Your task to perform on an android device: toggle pop-ups in chrome Image 0: 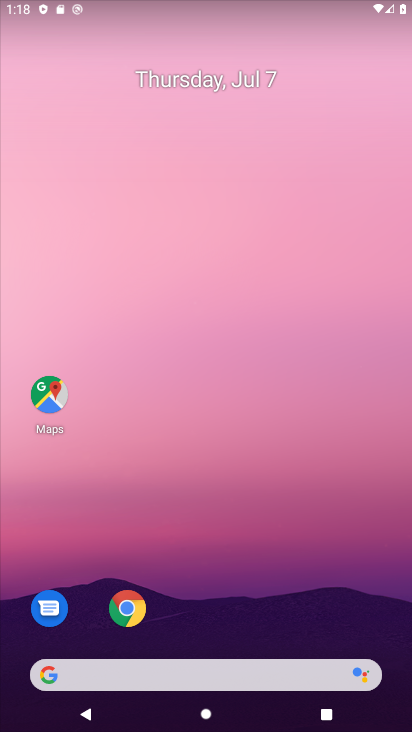
Step 0: click (114, 598)
Your task to perform on an android device: toggle pop-ups in chrome Image 1: 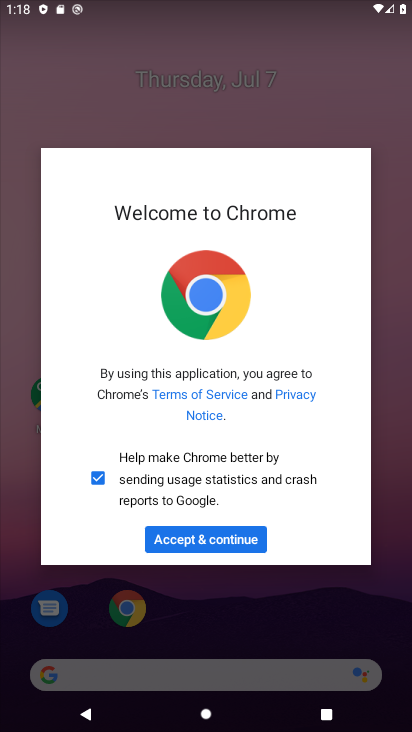
Step 1: click (235, 537)
Your task to perform on an android device: toggle pop-ups in chrome Image 2: 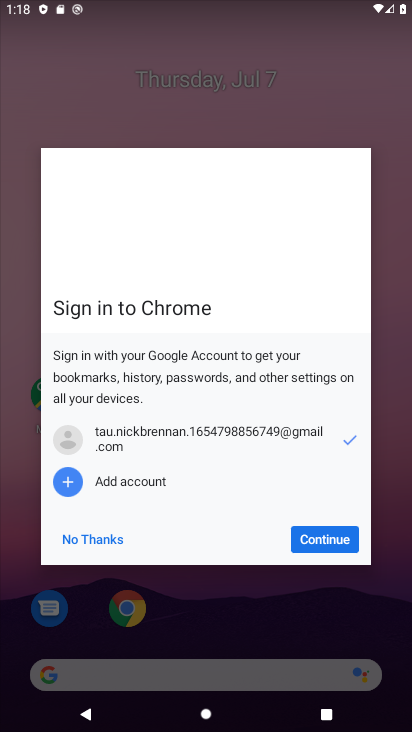
Step 2: click (315, 541)
Your task to perform on an android device: toggle pop-ups in chrome Image 3: 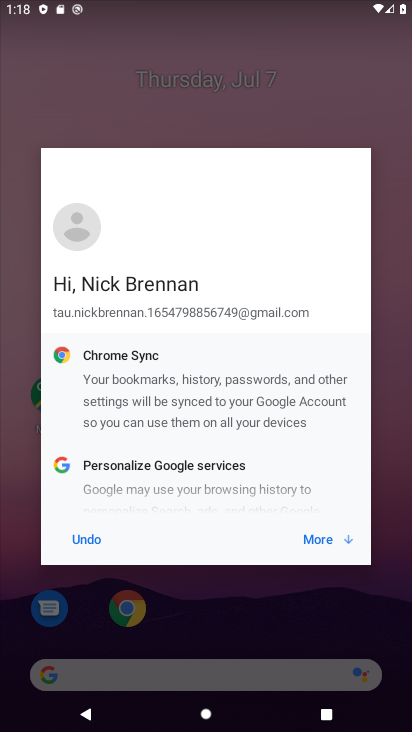
Step 3: click (324, 534)
Your task to perform on an android device: toggle pop-ups in chrome Image 4: 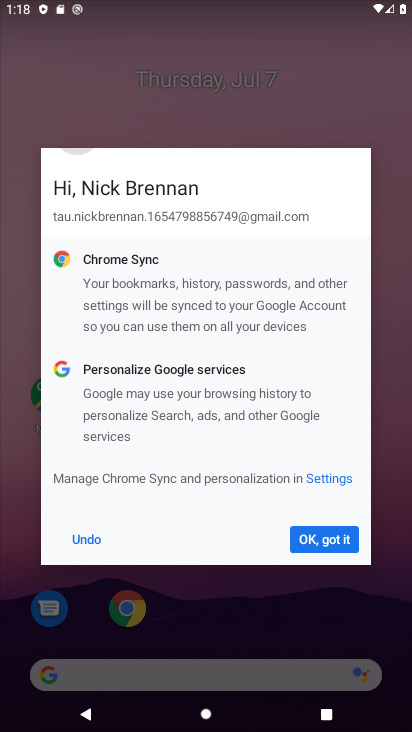
Step 4: click (355, 539)
Your task to perform on an android device: toggle pop-ups in chrome Image 5: 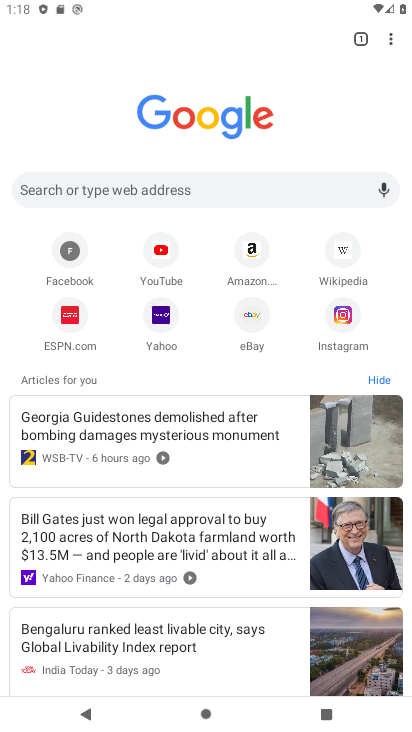
Step 5: drag from (394, 42) to (266, 331)
Your task to perform on an android device: toggle pop-ups in chrome Image 6: 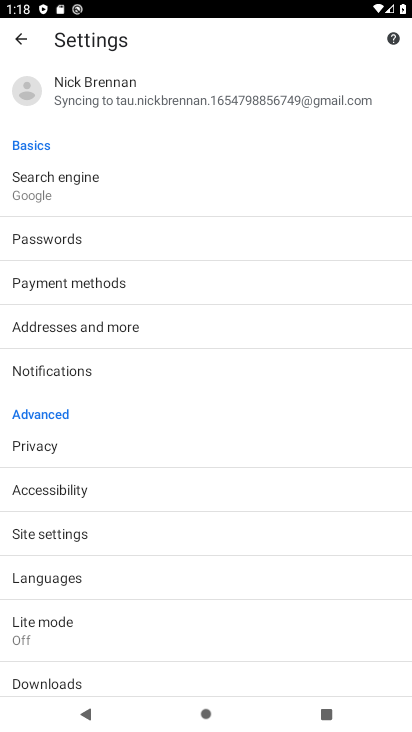
Step 6: drag from (127, 600) to (182, 598)
Your task to perform on an android device: toggle pop-ups in chrome Image 7: 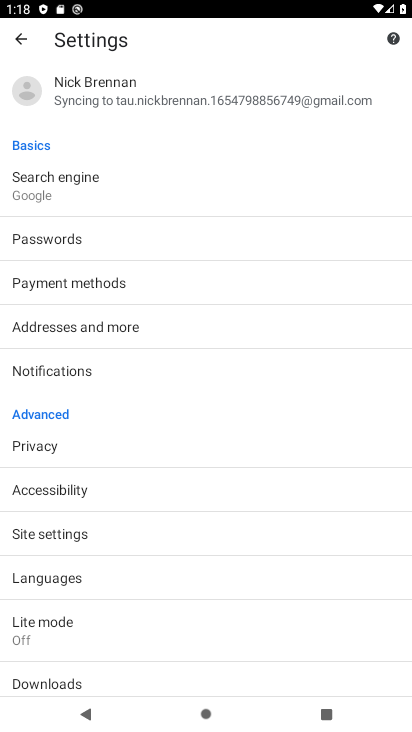
Step 7: click (97, 529)
Your task to perform on an android device: toggle pop-ups in chrome Image 8: 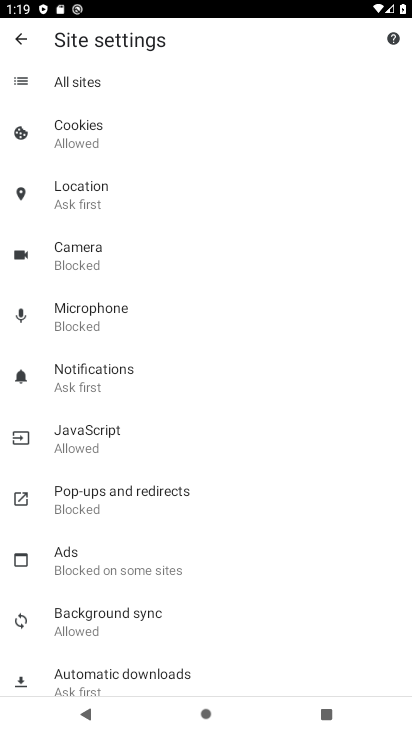
Step 8: click (137, 503)
Your task to perform on an android device: toggle pop-ups in chrome Image 9: 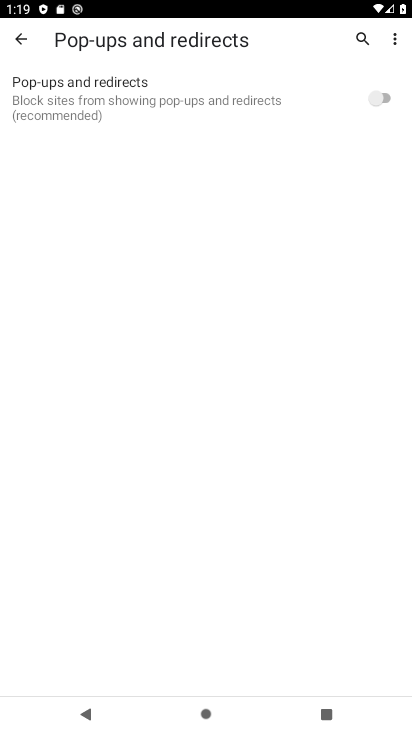
Step 9: click (397, 89)
Your task to perform on an android device: toggle pop-ups in chrome Image 10: 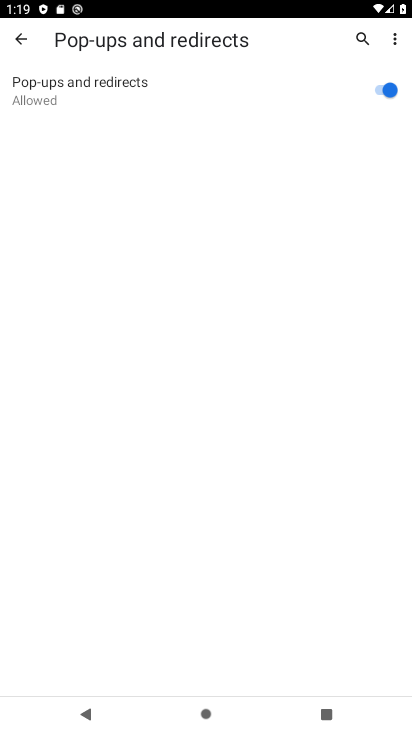
Step 10: task complete